Your task to perform on an android device: Go to notification settings Image 0: 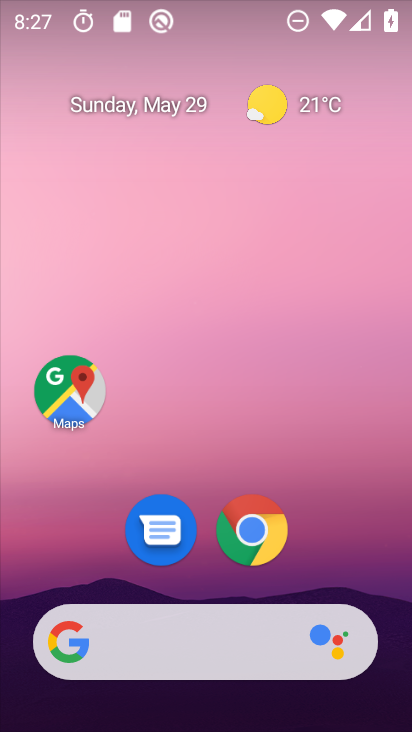
Step 0: drag from (265, 660) to (331, 128)
Your task to perform on an android device: Go to notification settings Image 1: 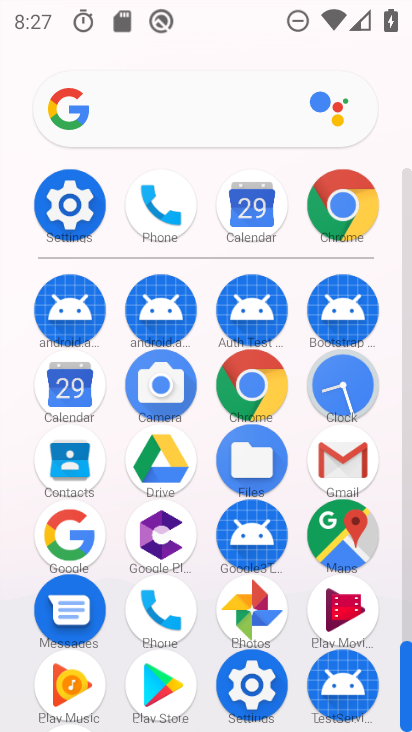
Step 1: click (62, 203)
Your task to perform on an android device: Go to notification settings Image 2: 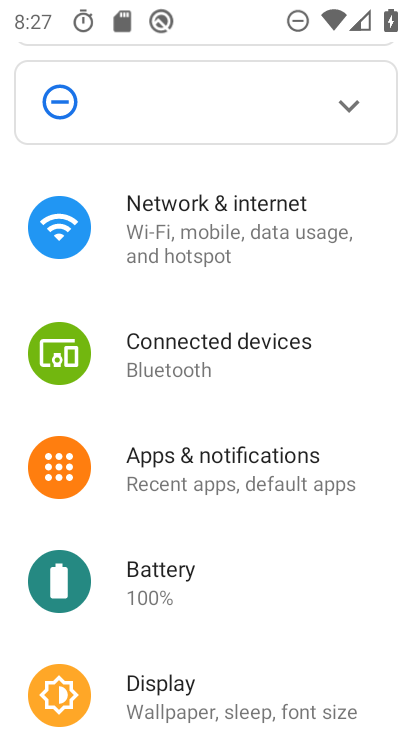
Step 2: drag from (189, 140) to (200, 352)
Your task to perform on an android device: Go to notification settings Image 3: 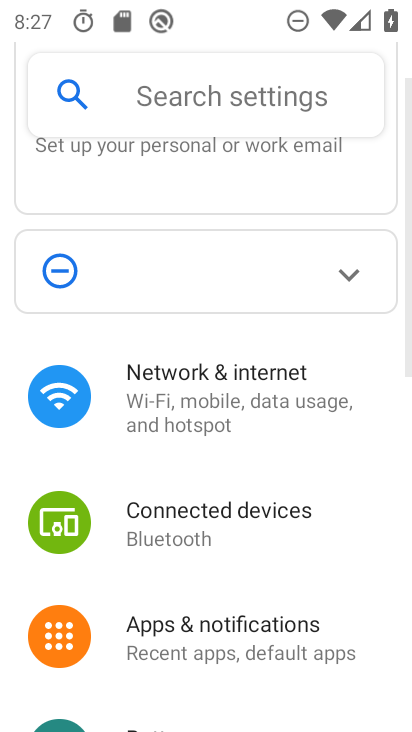
Step 3: click (171, 120)
Your task to perform on an android device: Go to notification settings Image 4: 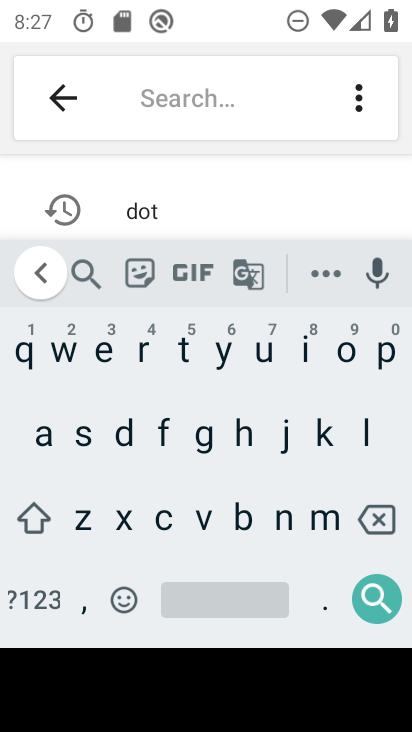
Step 4: click (281, 524)
Your task to perform on an android device: Go to notification settings Image 5: 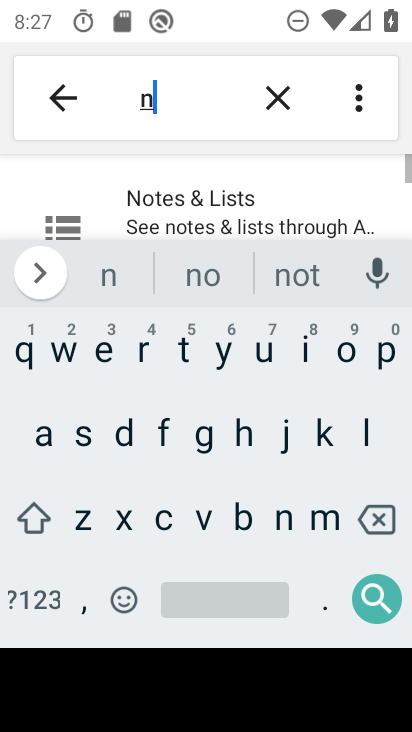
Step 5: click (341, 350)
Your task to perform on an android device: Go to notification settings Image 6: 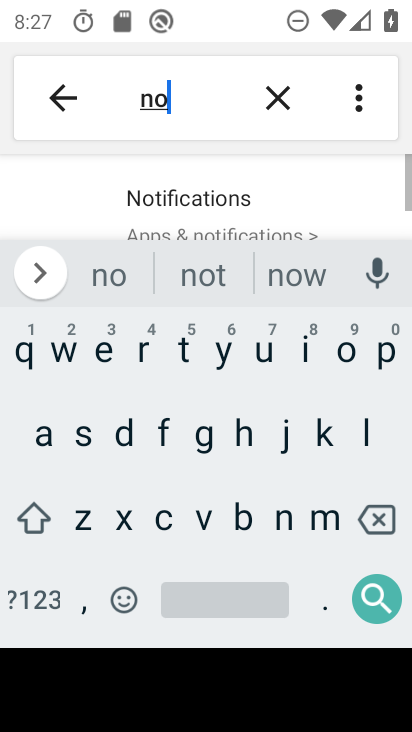
Step 6: click (204, 200)
Your task to perform on an android device: Go to notification settings Image 7: 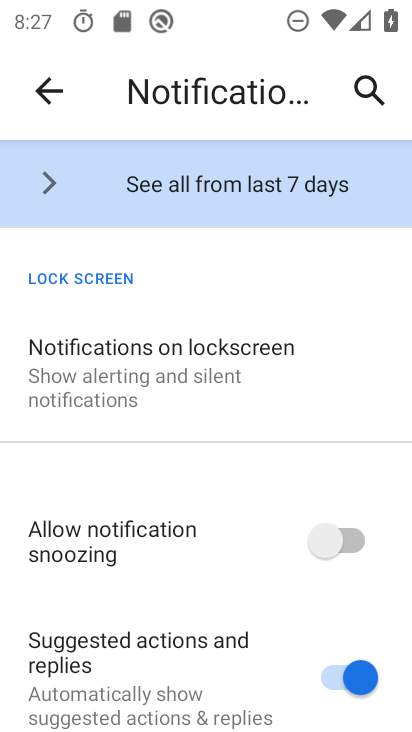
Step 7: click (126, 350)
Your task to perform on an android device: Go to notification settings Image 8: 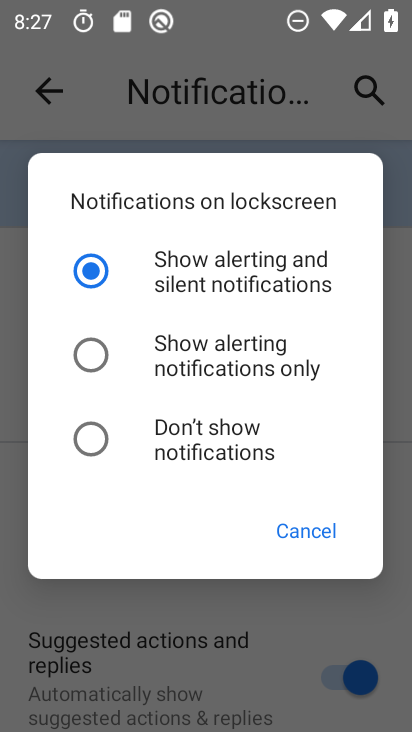
Step 8: task complete